Your task to perform on an android device: Go to Yahoo.com Image 0: 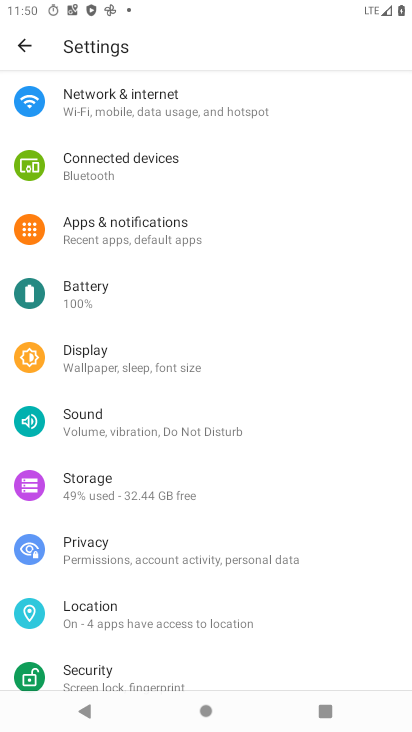
Step 0: press home button
Your task to perform on an android device: Go to Yahoo.com Image 1: 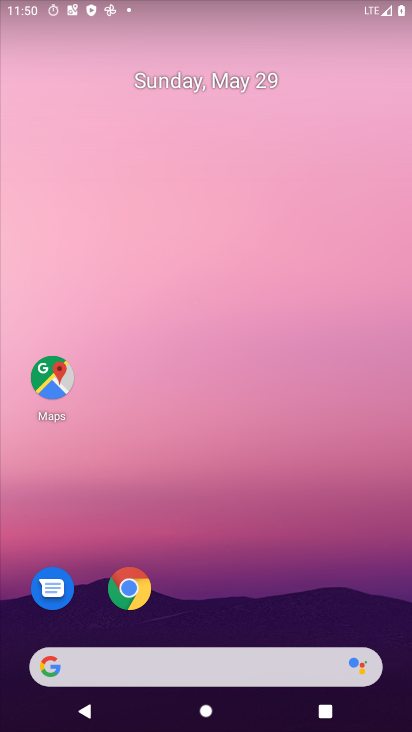
Step 1: drag from (242, 523) to (243, 174)
Your task to perform on an android device: Go to Yahoo.com Image 2: 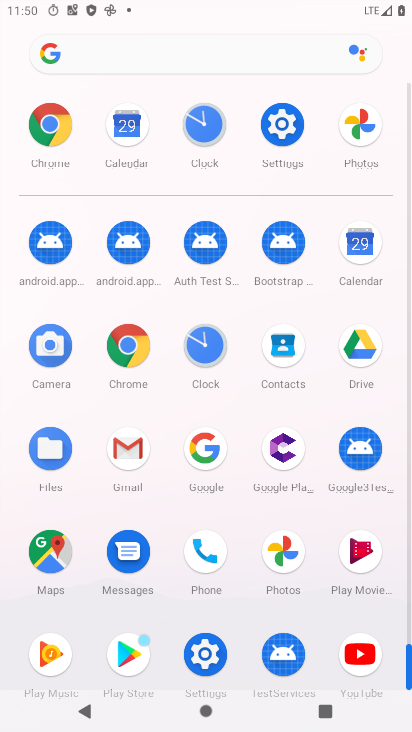
Step 2: click (133, 358)
Your task to perform on an android device: Go to Yahoo.com Image 3: 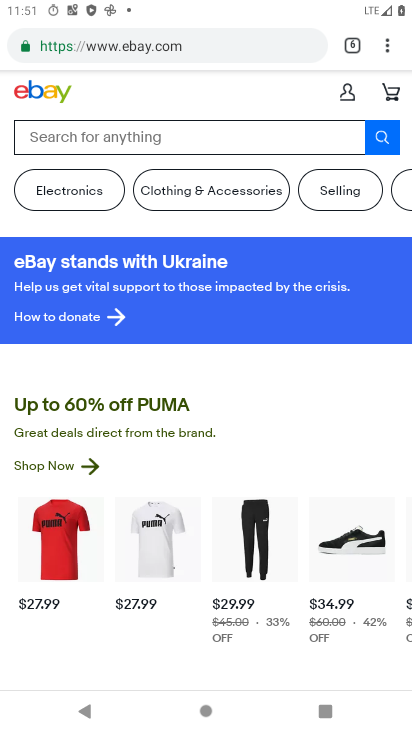
Step 3: click (346, 50)
Your task to perform on an android device: Go to Yahoo.com Image 4: 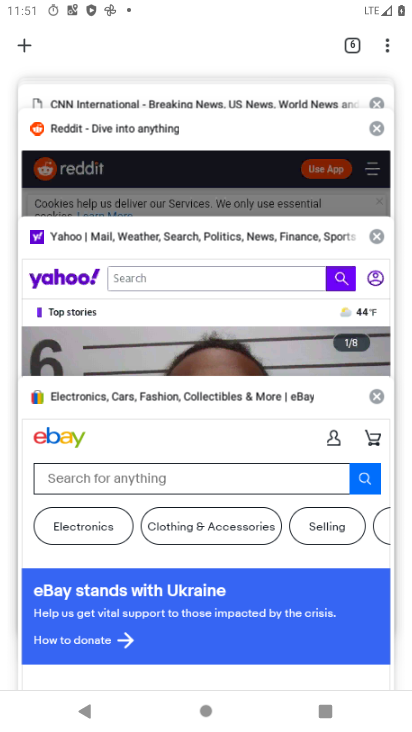
Step 4: click (122, 305)
Your task to perform on an android device: Go to Yahoo.com Image 5: 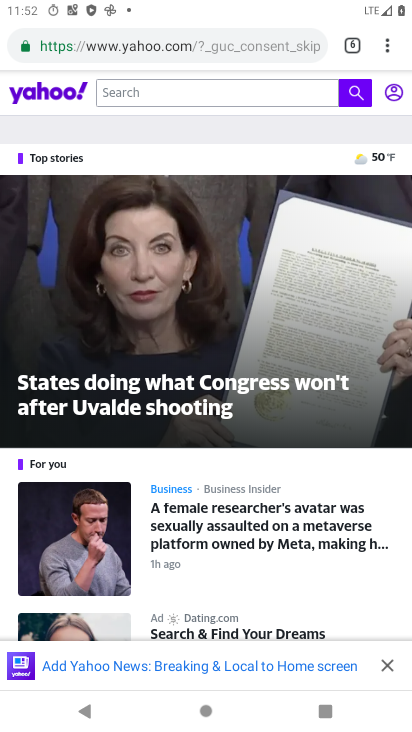
Step 5: task complete